Your task to perform on an android device: Open Google Maps and go to "Timeline" Image 0: 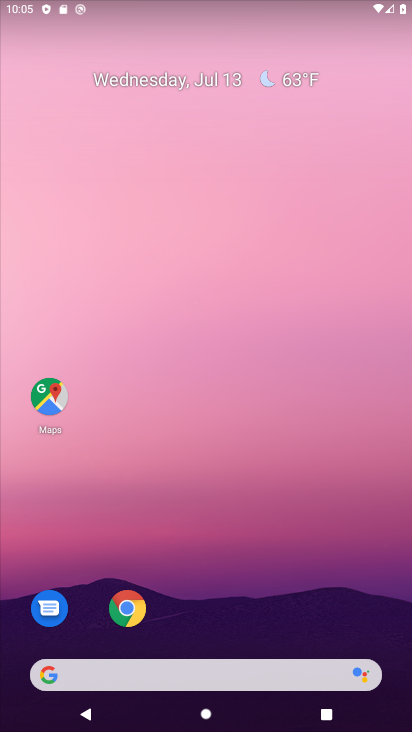
Step 0: drag from (287, 601) to (290, 3)
Your task to perform on an android device: Open Google Maps and go to "Timeline" Image 1: 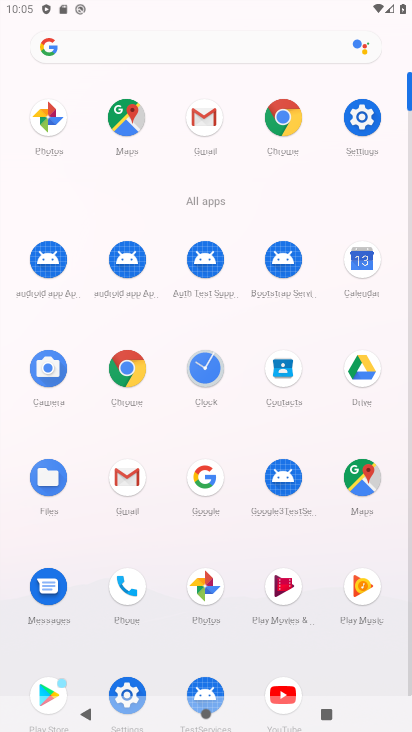
Step 1: click (124, 105)
Your task to perform on an android device: Open Google Maps and go to "Timeline" Image 2: 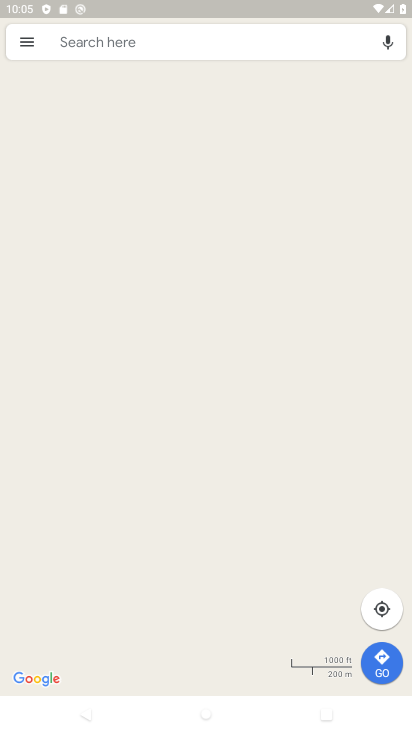
Step 2: click (23, 34)
Your task to perform on an android device: Open Google Maps and go to "Timeline" Image 3: 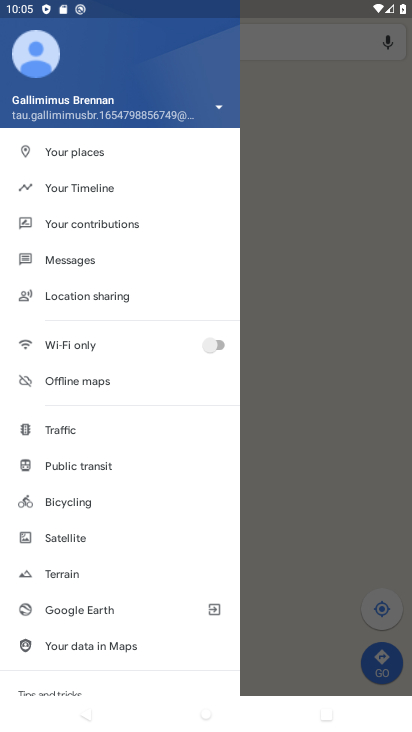
Step 3: click (79, 187)
Your task to perform on an android device: Open Google Maps and go to "Timeline" Image 4: 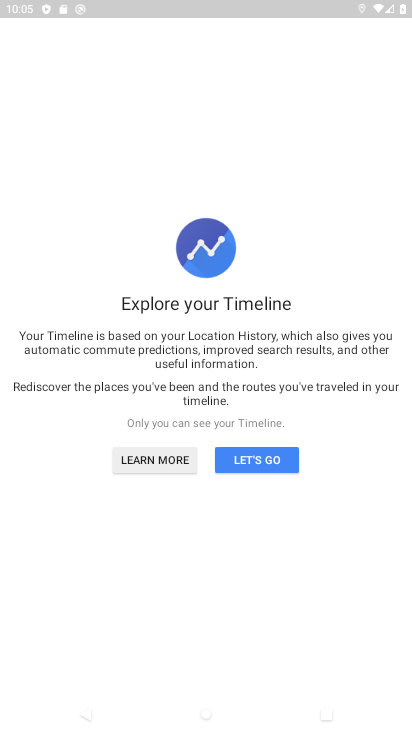
Step 4: click (253, 447)
Your task to perform on an android device: Open Google Maps and go to "Timeline" Image 5: 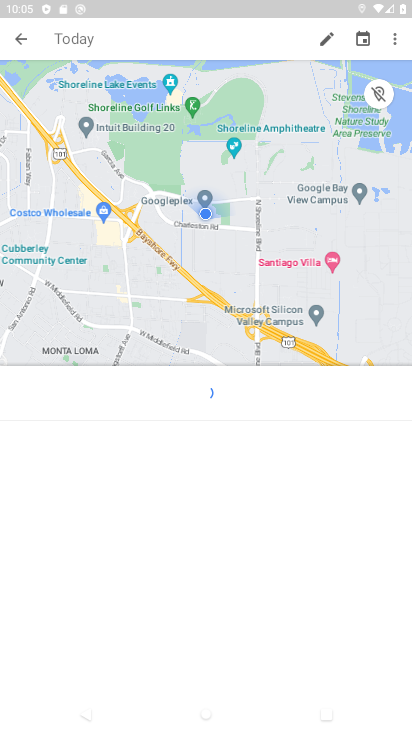
Step 5: task complete